Your task to perform on an android device: Go to wifi settings Image 0: 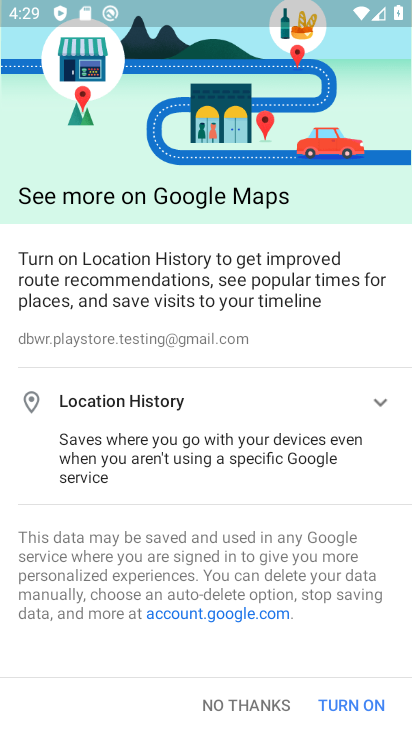
Step 0: press home button
Your task to perform on an android device: Go to wifi settings Image 1: 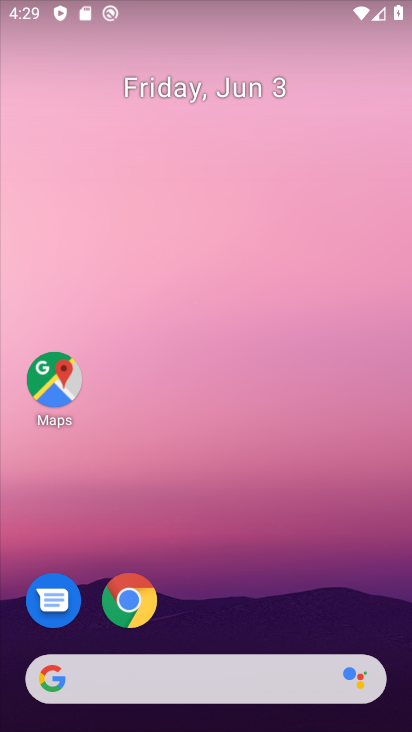
Step 1: drag from (218, 614) to (406, 50)
Your task to perform on an android device: Go to wifi settings Image 2: 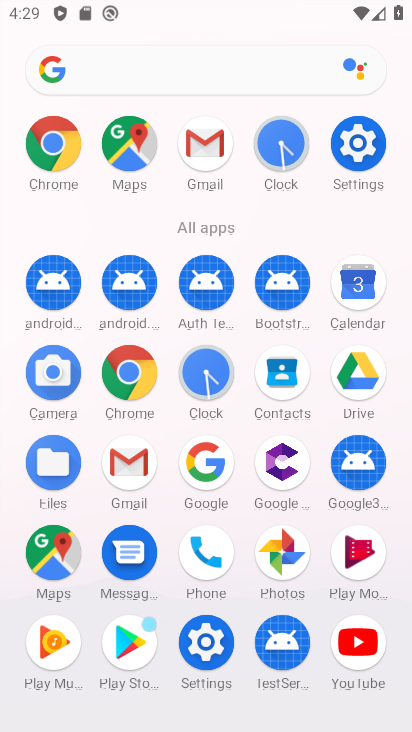
Step 2: click (362, 151)
Your task to perform on an android device: Go to wifi settings Image 3: 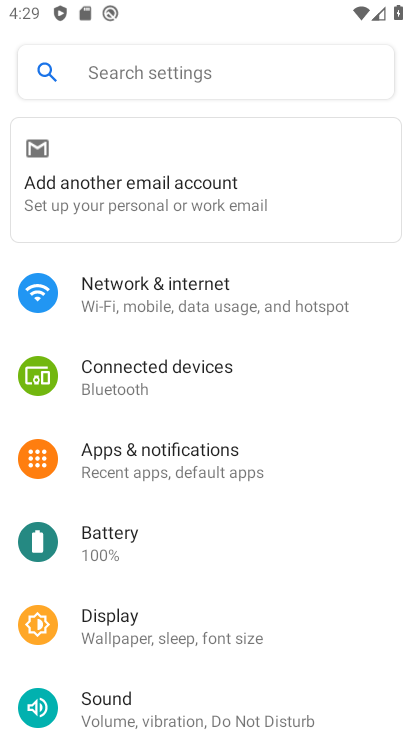
Step 3: click (189, 314)
Your task to perform on an android device: Go to wifi settings Image 4: 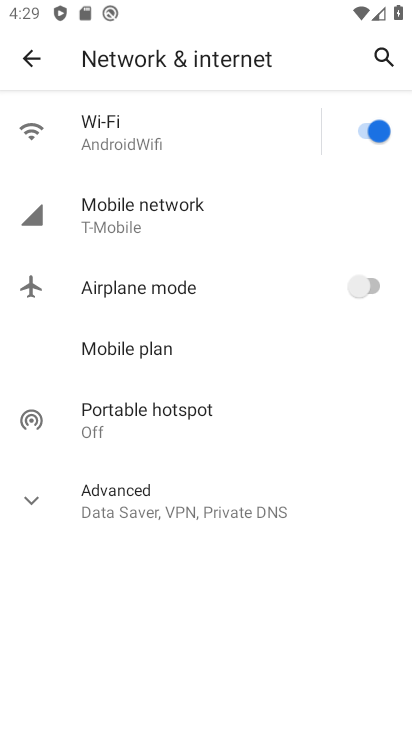
Step 4: click (140, 127)
Your task to perform on an android device: Go to wifi settings Image 5: 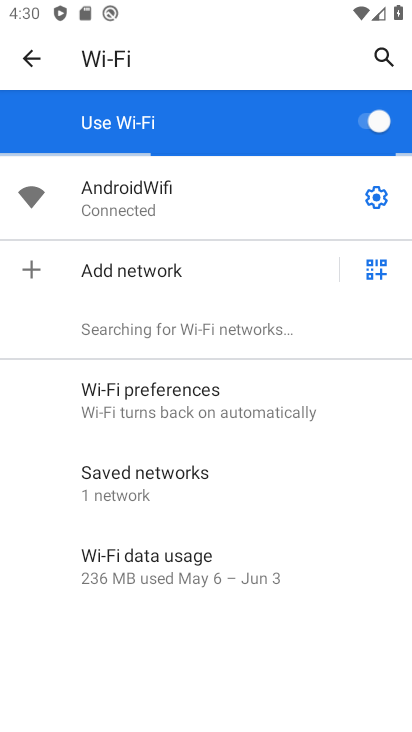
Step 5: task complete